Your task to perform on an android device: open app "YouTube Kids" (install if not already installed) and go to login screen Image 0: 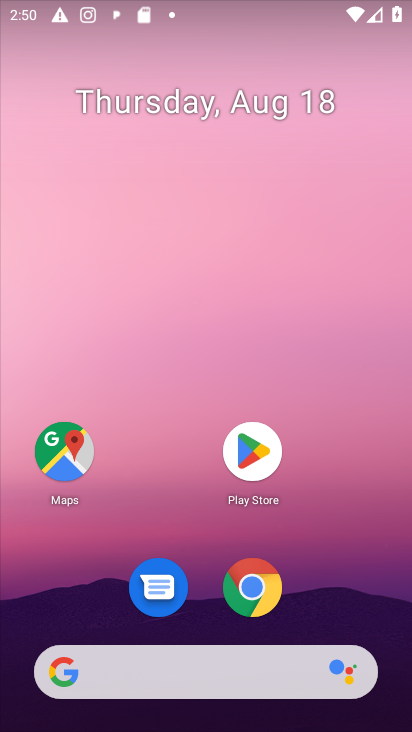
Step 0: click (256, 446)
Your task to perform on an android device: open app "YouTube Kids" (install if not already installed) and go to login screen Image 1: 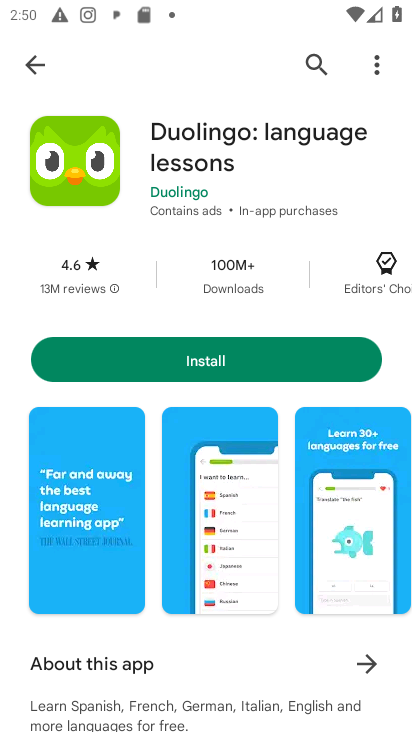
Step 1: click (307, 54)
Your task to perform on an android device: open app "YouTube Kids" (install if not already installed) and go to login screen Image 2: 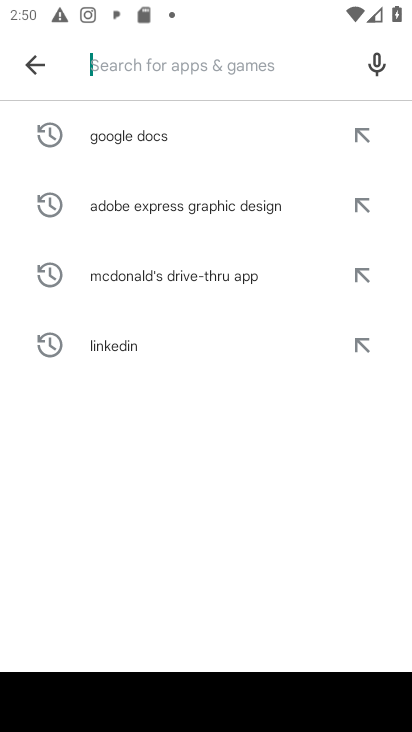
Step 2: type "YouTube Kids"
Your task to perform on an android device: open app "YouTube Kids" (install if not already installed) and go to login screen Image 3: 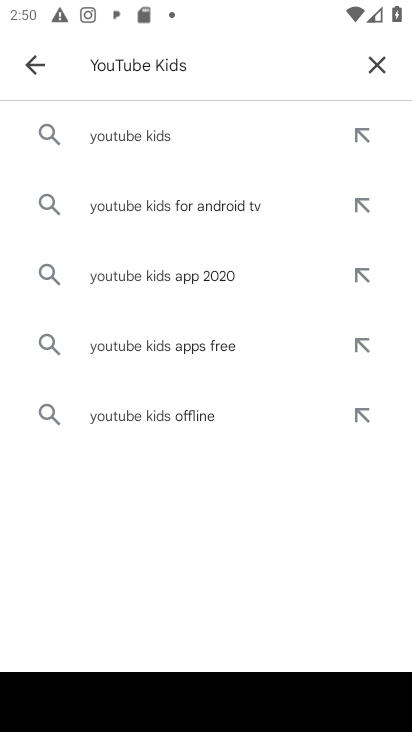
Step 3: click (137, 129)
Your task to perform on an android device: open app "YouTube Kids" (install if not already installed) and go to login screen Image 4: 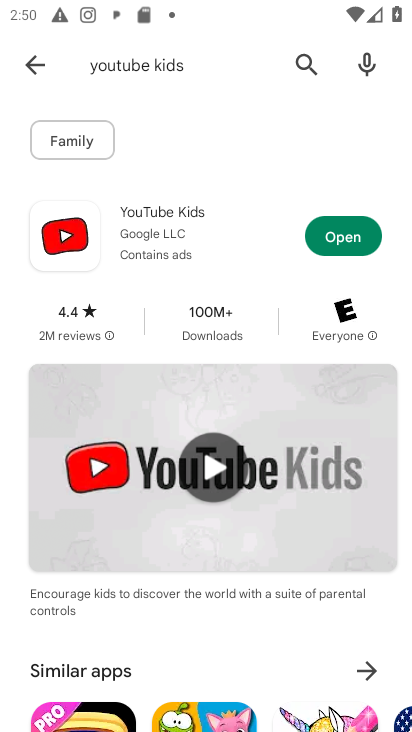
Step 4: click (359, 235)
Your task to perform on an android device: open app "YouTube Kids" (install if not already installed) and go to login screen Image 5: 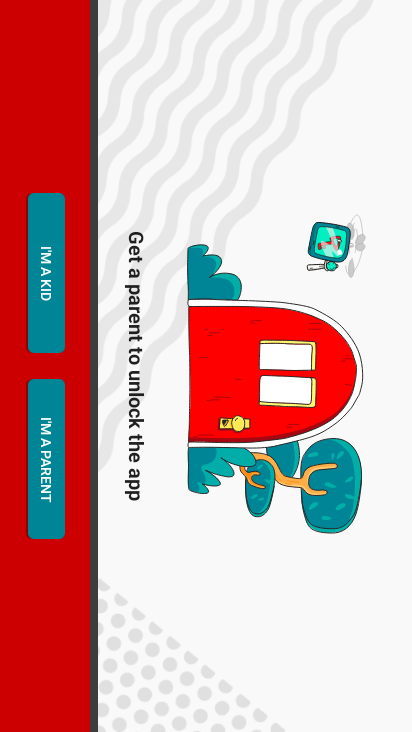
Step 5: task complete